Your task to perform on an android device: Open Reddit.com Image 0: 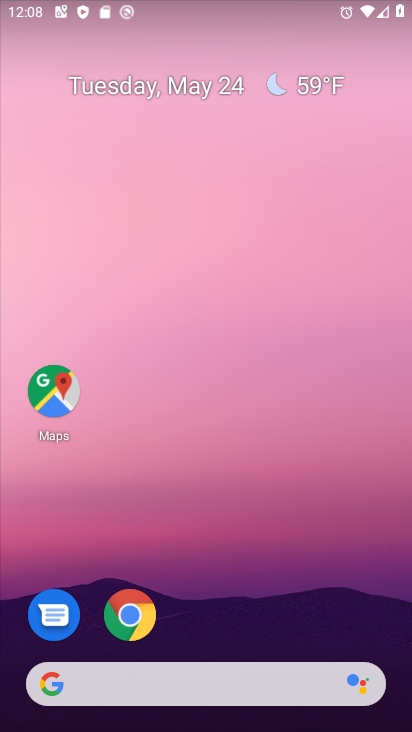
Step 0: drag from (266, 568) to (262, 90)
Your task to perform on an android device: Open Reddit.com Image 1: 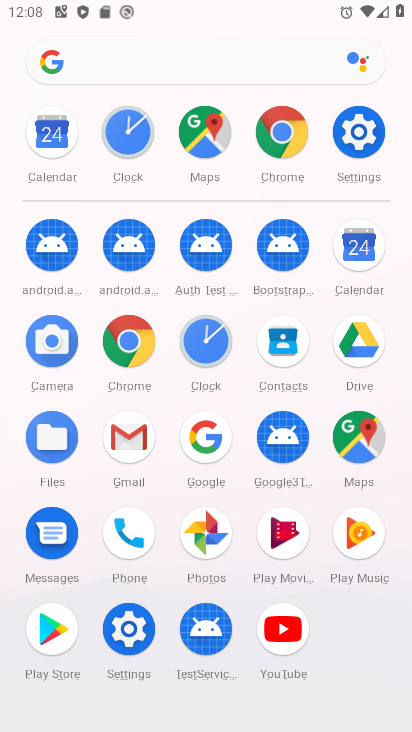
Step 1: drag from (15, 599) to (11, 243)
Your task to perform on an android device: Open Reddit.com Image 2: 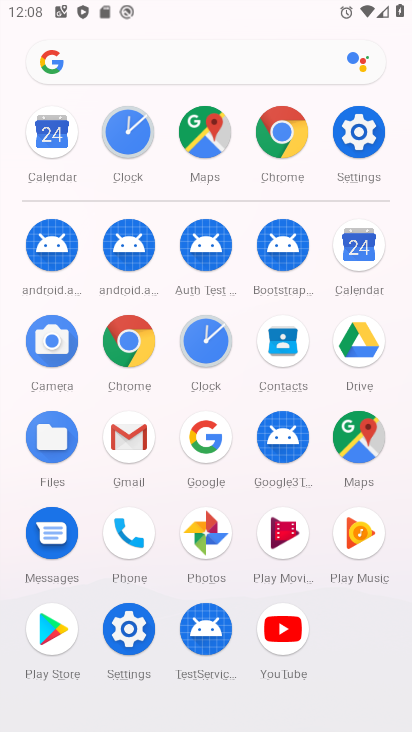
Step 2: click (126, 339)
Your task to perform on an android device: Open Reddit.com Image 3: 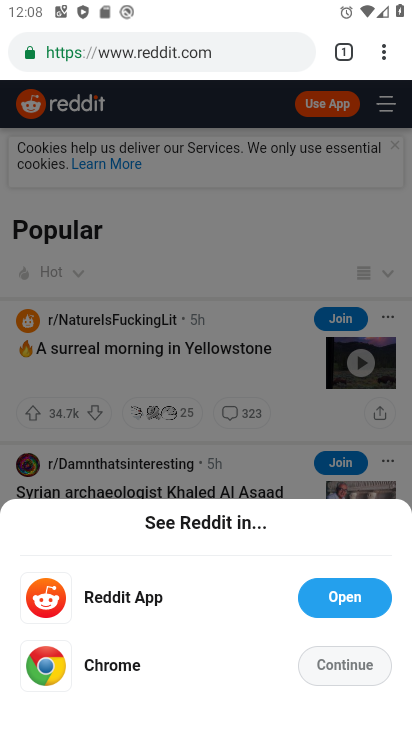
Step 3: click (174, 60)
Your task to perform on an android device: Open Reddit.com Image 4: 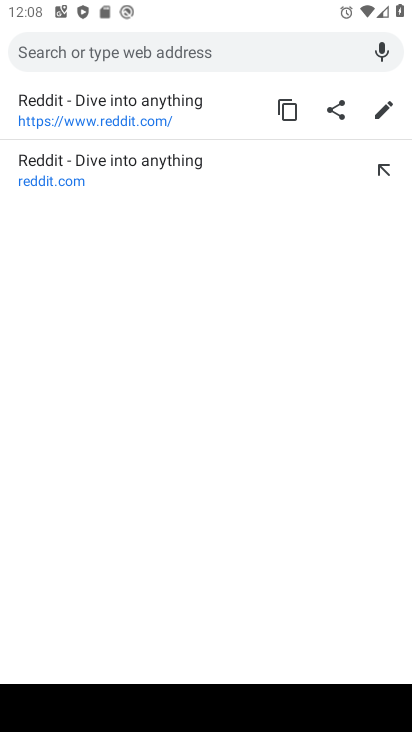
Step 4: click (86, 153)
Your task to perform on an android device: Open Reddit.com Image 5: 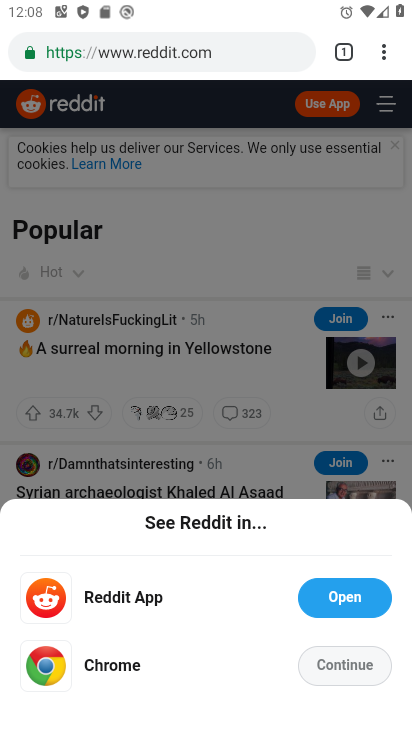
Step 5: task complete